Your task to perform on an android device: turn off wifi Image 0: 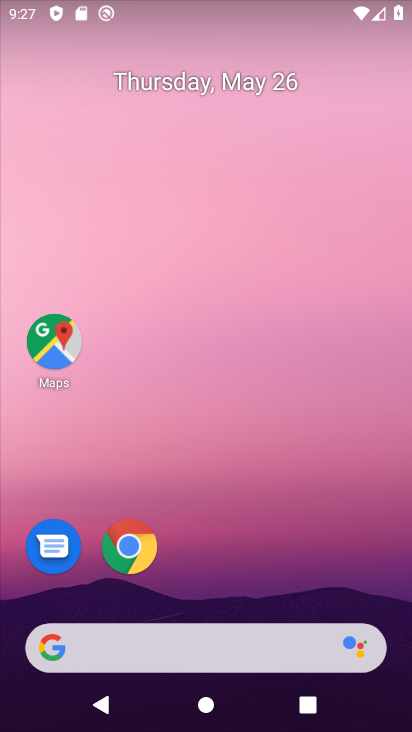
Step 0: press home button
Your task to perform on an android device: turn off wifi Image 1: 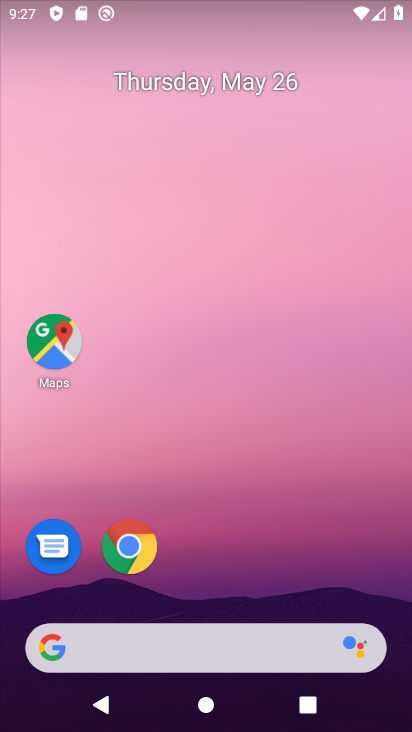
Step 1: drag from (364, 568) to (324, 184)
Your task to perform on an android device: turn off wifi Image 2: 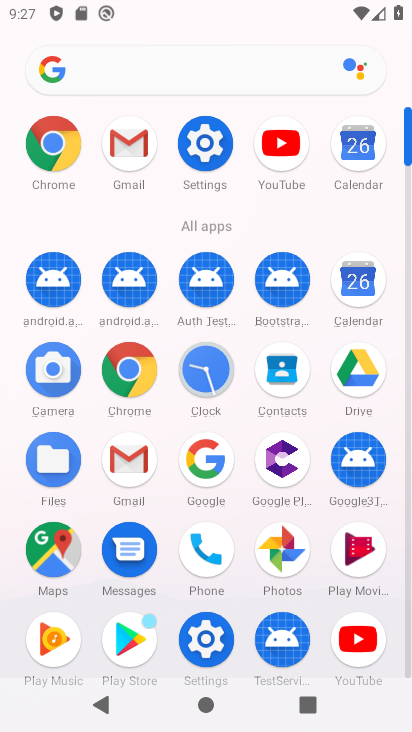
Step 2: click (203, 148)
Your task to perform on an android device: turn off wifi Image 3: 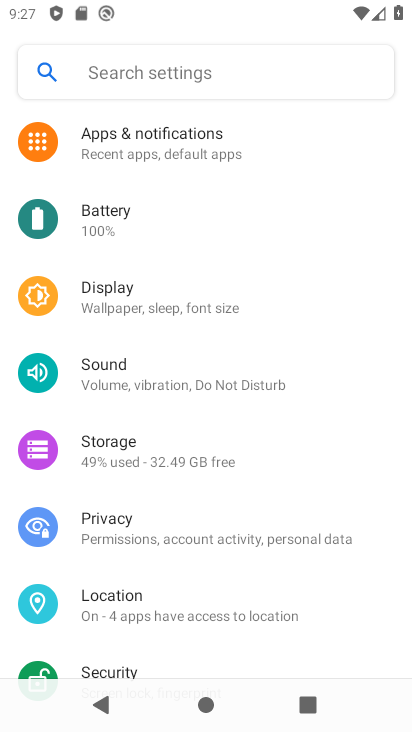
Step 3: drag from (205, 153) to (238, 528)
Your task to perform on an android device: turn off wifi Image 4: 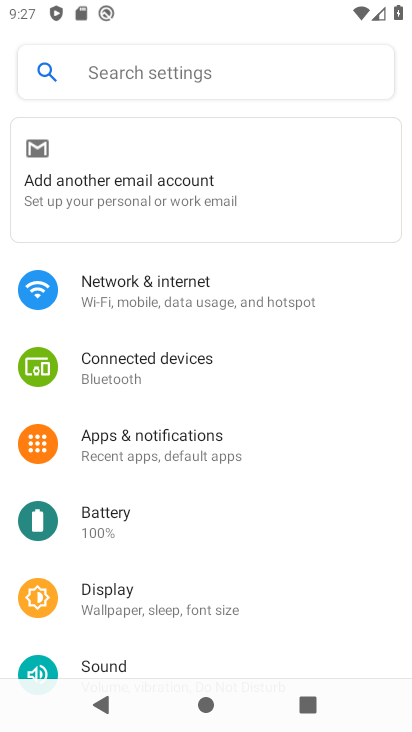
Step 4: click (194, 291)
Your task to perform on an android device: turn off wifi Image 5: 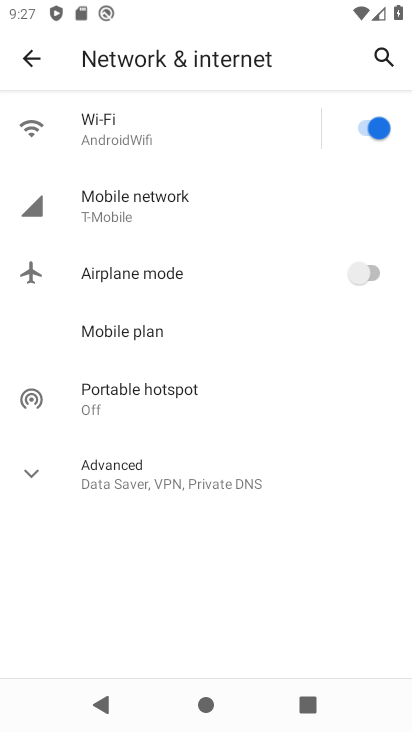
Step 5: click (368, 131)
Your task to perform on an android device: turn off wifi Image 6: 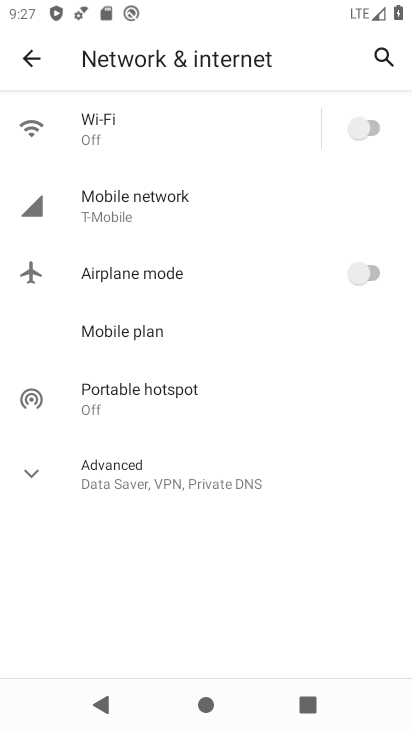
Step 6: task complete